Your task to perform on an android device: toggle notifications settings in the gmail app Image 0: 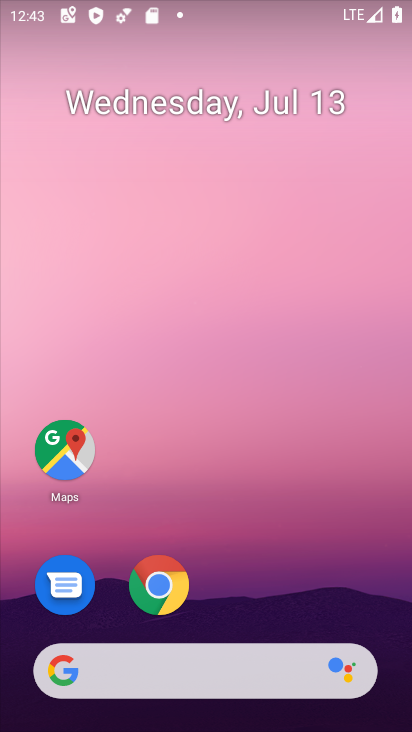
Step 0: drag from (190, 601) to (240, 44)
Your task to perform on an android device: toggle notifications settings in the gmail app Image 1: 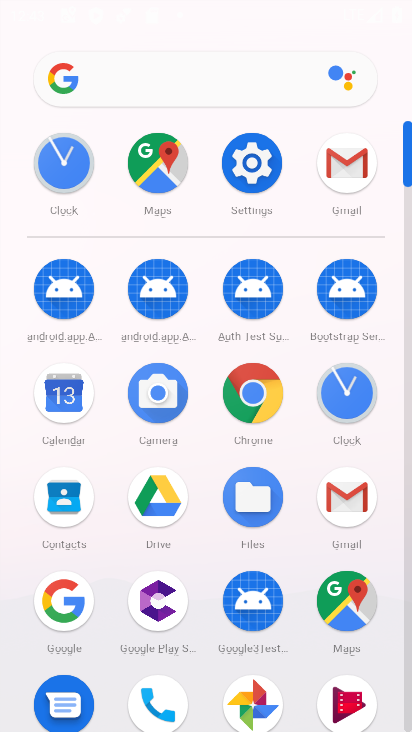
Step 1: click (349, 167)
Your task to perform on an android device: toggle notifications settings in the gmail app Image 2: 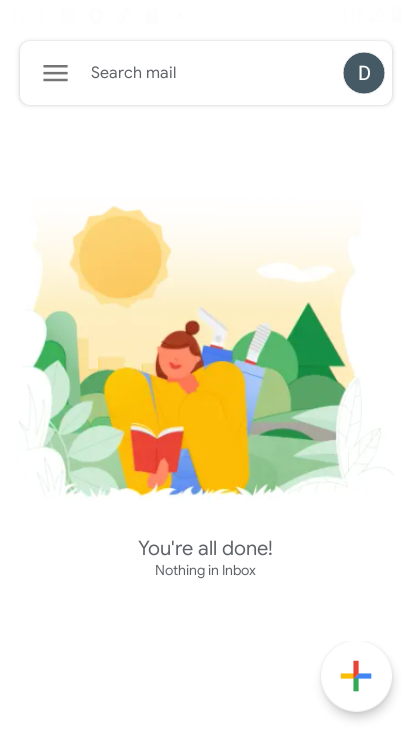
Step 2: click (60, 74)
Your task to perform on an android device: toggle notifications settings in the gmail app Image 3: 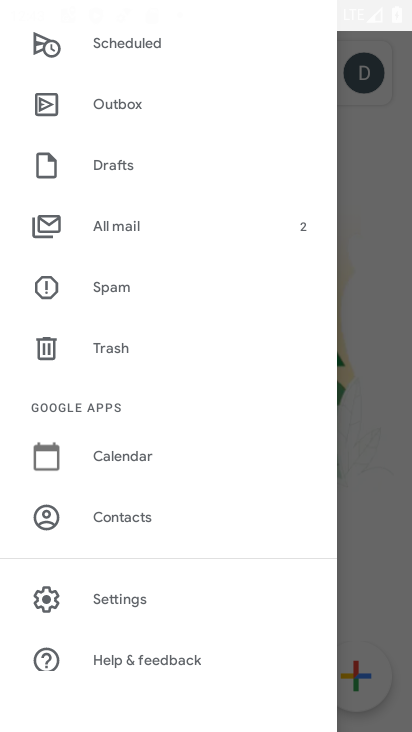
Step 3: click (132, 600)
Your task to perform on an android device: toggle notifications settings in the gmail app Image 4: 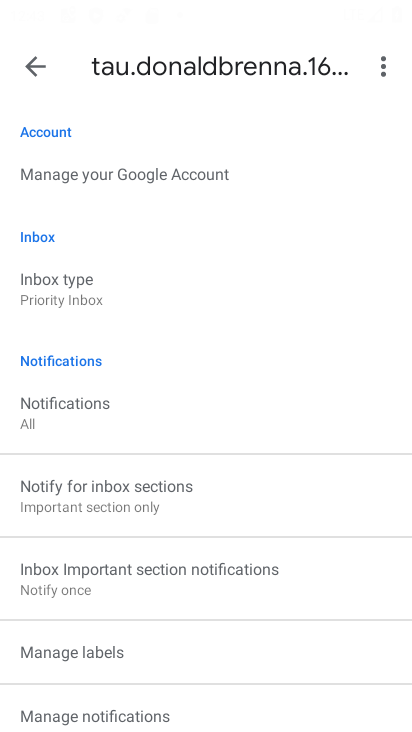
Step 4: click (81, 711)
Your task to perform on an android device: toggle notifications settings in the gmail app Image 5: 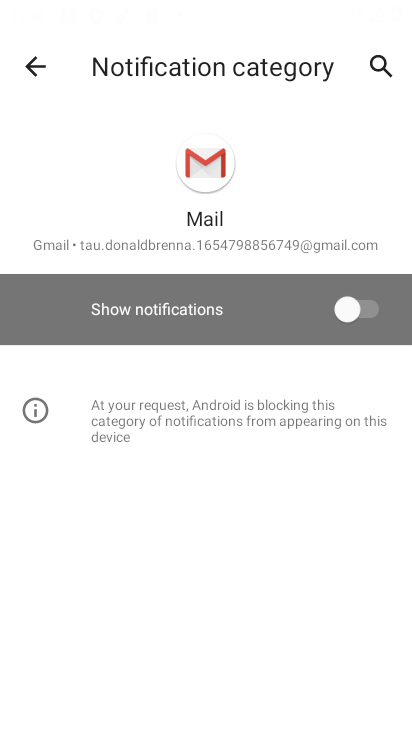
Step 5: click (377, 304)
Your task to perform on an android device: toggle notifications settings in the gmail app Image 6: 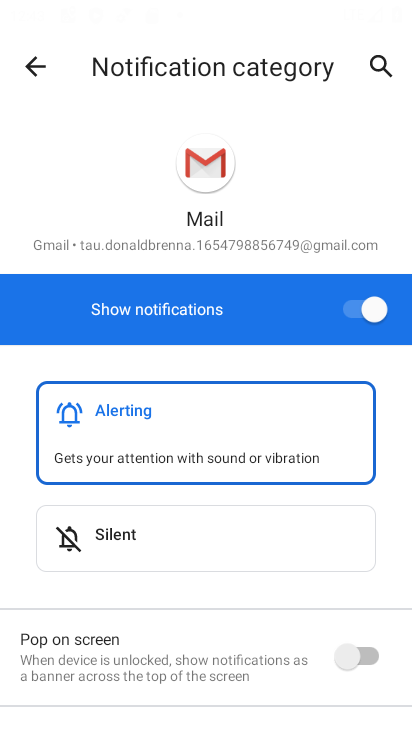
Step 6: task complete